Your task to perform on an android device: What's on my calendar tomorrow? Image 0: 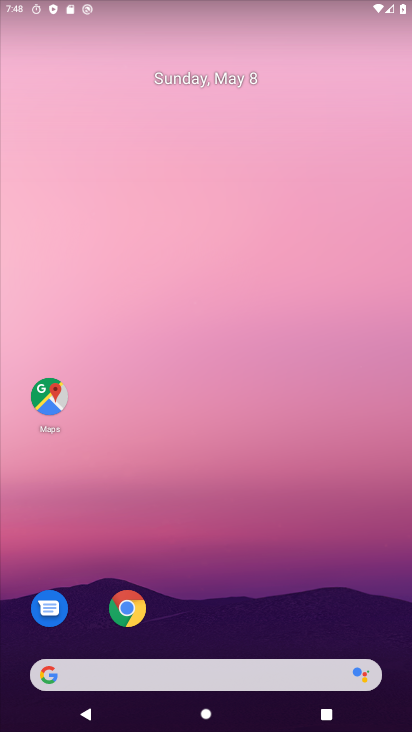
Step 0: drag from (307, 324) to (411, 0)
Your task to perform on an android device: What's on my calendar tomorrow? Image 1: 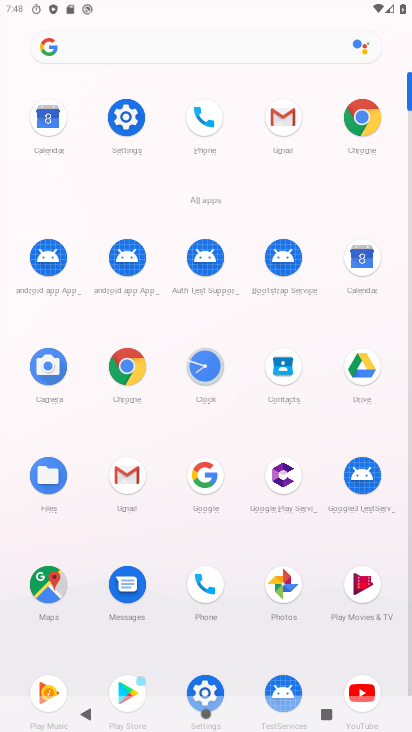
Step 1: click (358, 259)
Your task to perform on an android device: What's on my calendar tomorrow? Image 2: 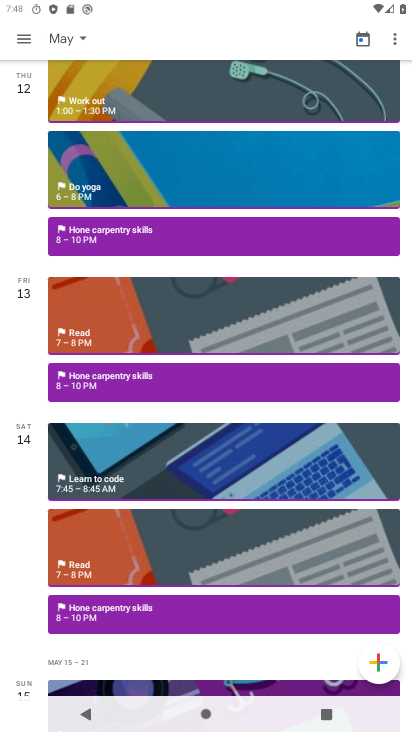
Step 2: click (54, 40)
Your task to perform on an android device: What's on my calendar tomorrow? Image 3: 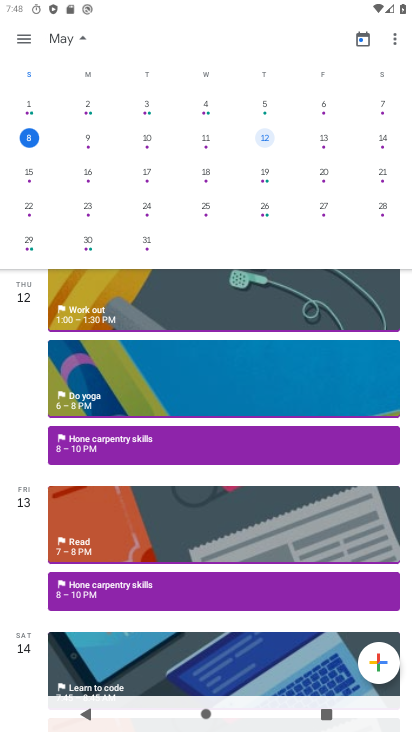
Step 3: click (87, 142)
Your task to perform on an android device: What's on my calendar tomorrow? Image 4: 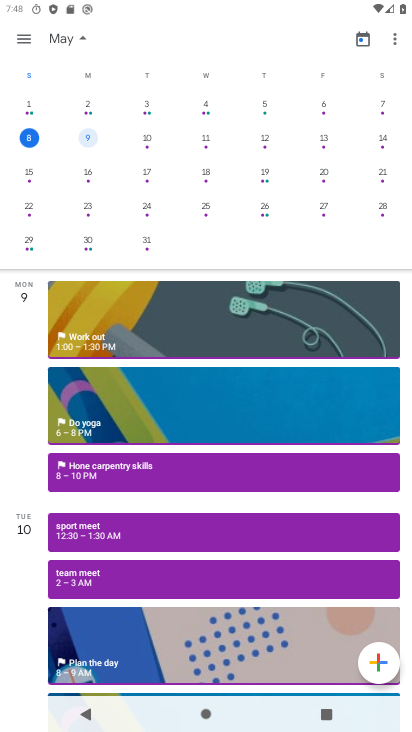
Step 4: task complete